Your task to perform on an android device: add a contact in the contacts app Image 0: 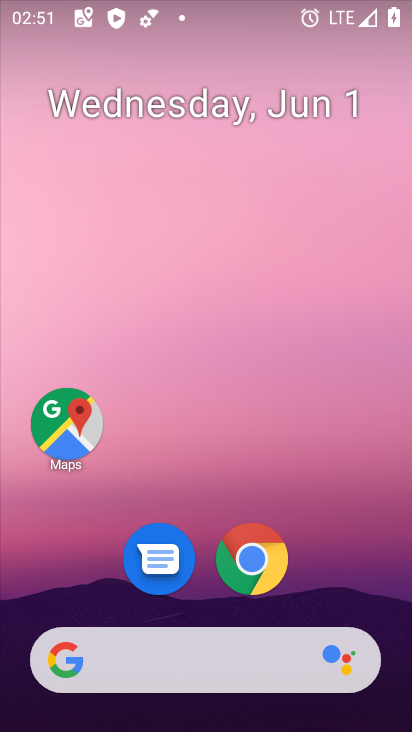
Step 0: press home button
Your task to perform on an android device: add a contact in the contacts app Image 1: 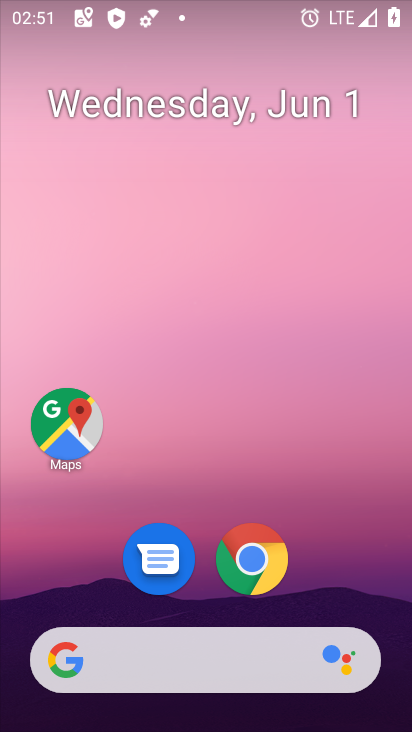
Step 1: drag from (307, 599) to (268, 253)
Your task to perform on an android device: add a contact in the contacts app Image 2: 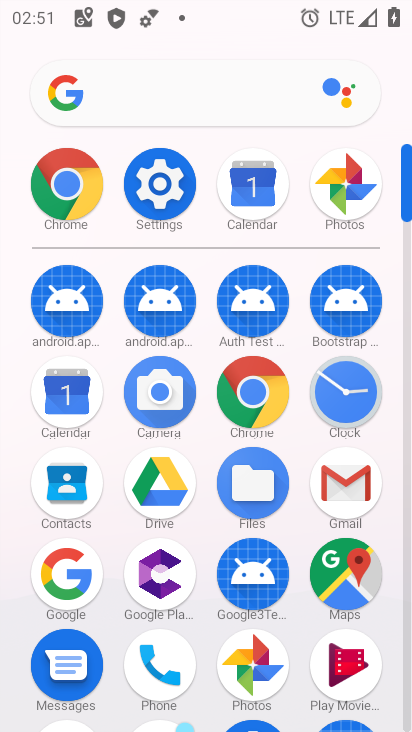
Step 2: click (61, 485)
Your task to perform on an android device: add a contact in the contacts app Image 3: 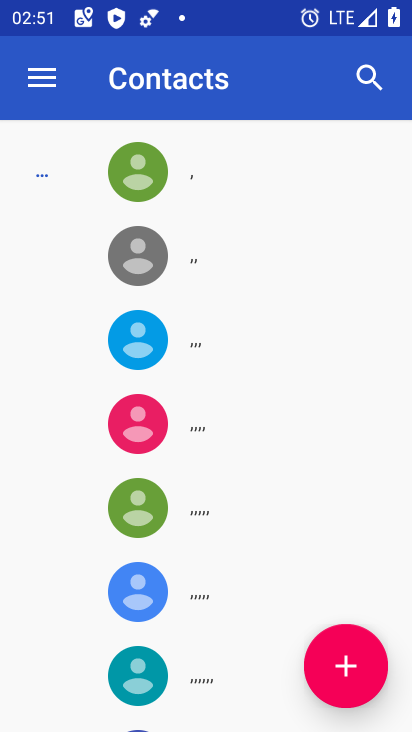
Step 3: click (353, 666)
Your task to perform on an android device: add a contact in the contacts app Image 4: 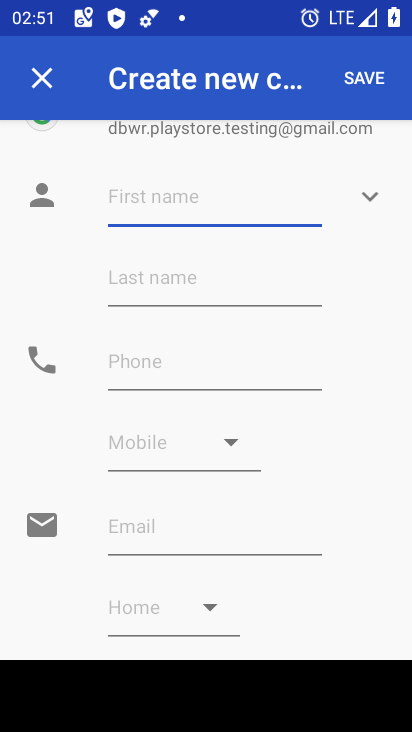
Step 4: type "vbvbvbvb"
Your task to perform on an android device: add a contact in the contacts app Image 5: 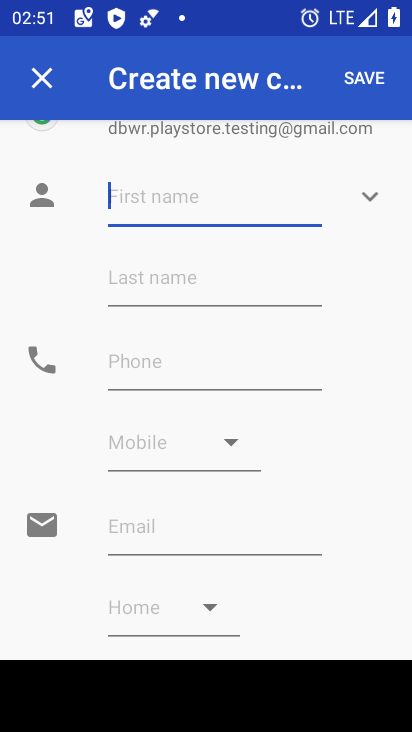
Step 5: click (176, 362)
Your task to perform on an android device: add a contact in the contacts app Image 6: 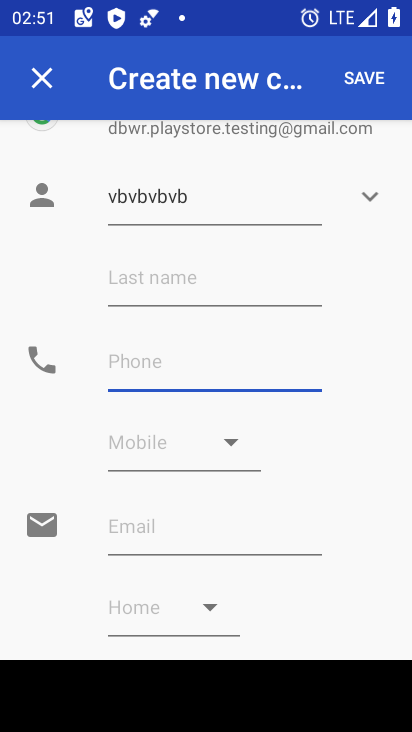
Step 6: type "76767676767"
Your task to perform on an android device: add a contact in the contacts app Image 7: 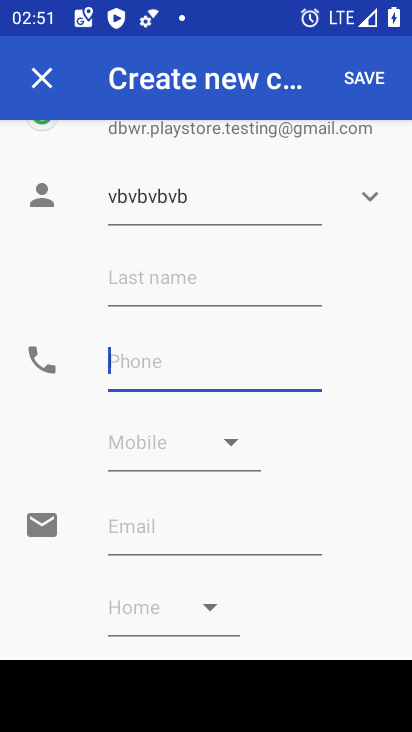
Step 7: click (242, 362)
Your task to perform on an android device: add a contact in the contacts app Image 8: 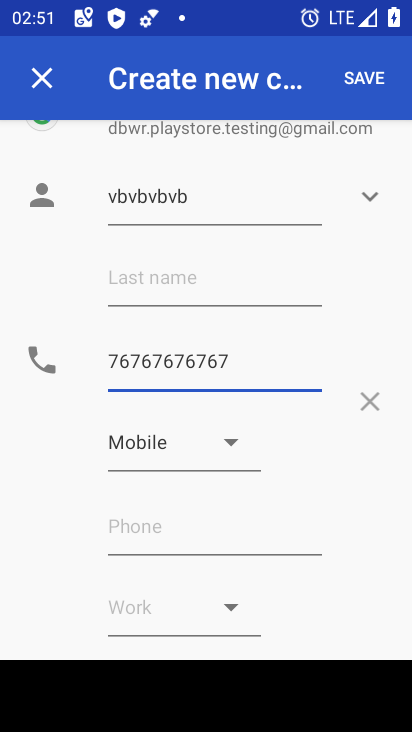
Step 8: click (368, 78)
Your task to perform on an android device: add a contact in the contacts app Image 9: 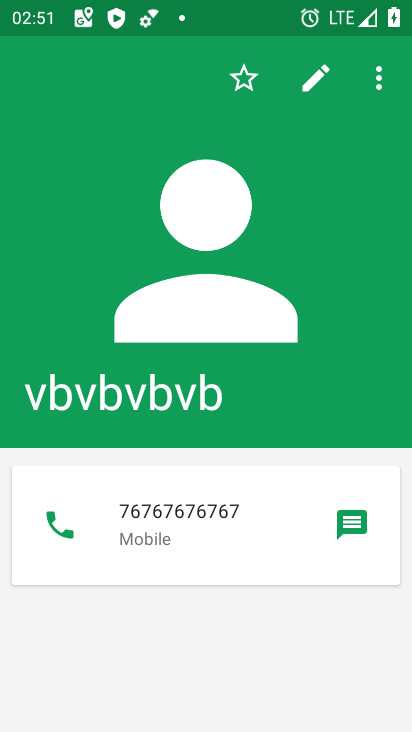
Step 9: task complete